Your task to perform on an android device: Show the shopping cart on amazon. Search for logitech g910 on amazon, select the first entry, add it to the cart, then select checkout. Image 0: 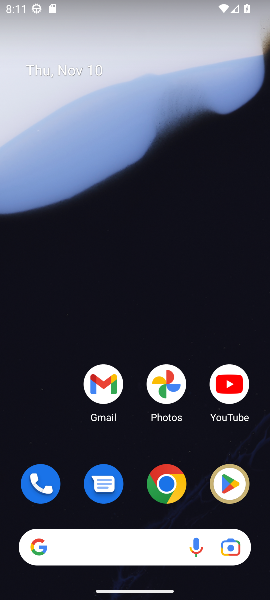
Step 0: click (165, 491)
Your task to perform on an android device: Show the shopping cart on amazon. Search for logitech g910 on amazon, select the first entry, add it to the cart, then select checkout. Image 1: 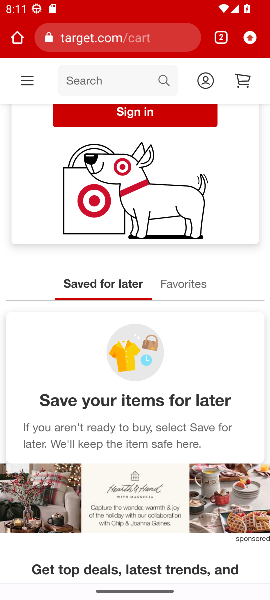
Step 1: click (139, 44)
Your task to perform on an android device: Show the shopping cart on amazon. Search for logitech g910 on amazon, select the first entry, add it to the cart, then select checkout. Image 2: 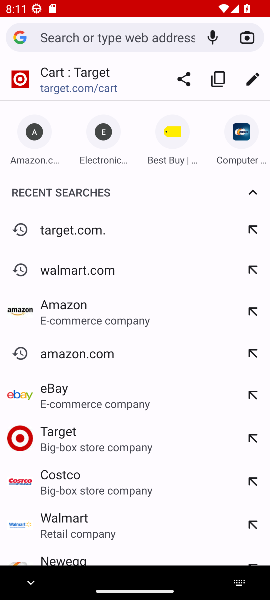
Step 2: click (39, 150)
Your task to perform on an android device: Show the shopping cart on amazon. Search for logitech g910 on amazon, select the first entry, add it to the cart, then select checkout. Image 3: 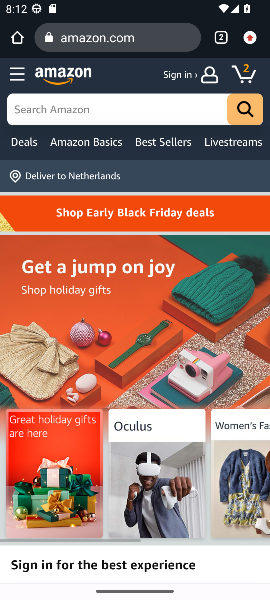
Step 3: click (245, 69)
Your task to perform on an android device: Show the shopping cart on amazon. Search for logitech g910 on amazon, select the first entry, add it to the cart, then select checkout. Image 4: 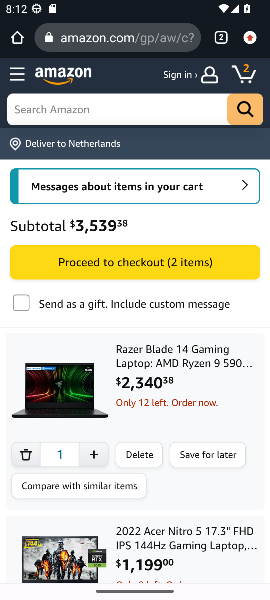
Step 4: drag from (124, 505) to (127, 352)
Your task to perform on an android device: Show the shopping cart on amazon. Search for logitech g910 on amazon, select the first entry, add it to the cart, then select checkout. Image 5: 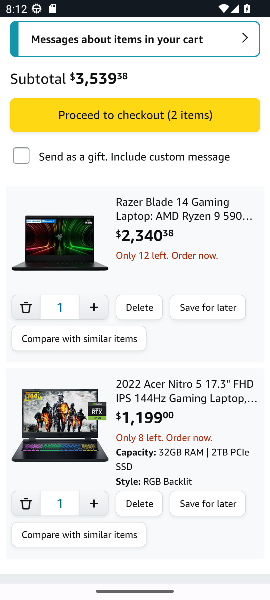
Step 5: drag from (147, 141) to (168, 409)
Your task to perform on an android device: Show the shopping cart on amazon. Search for logitech g910 on amazon, select the first entry, add it to the cart, then select checkout. Image 6: 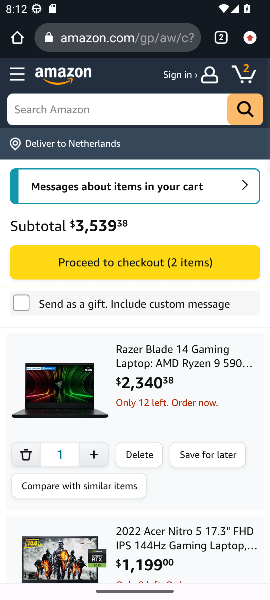
Step 6: click (119, 114)
Your task to perform on an android device: Show the shopping cart on amazon. Search for logitech g910 on amazon, select the first entry, add it to the cart, then select checkout. Image 7: 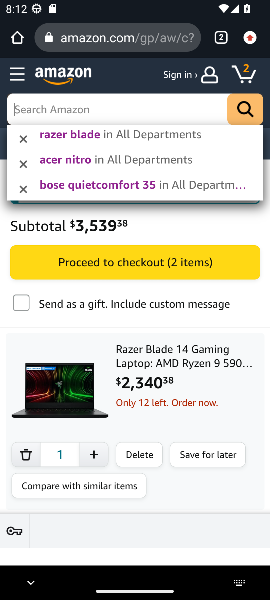
Step 7: type " logitech g910"
Your task to perform on an android device: Show the shopping cart on amazon. Search for logitech g910 on amazon, select the first entry, add it to the cart, then select checkout. Image 8: 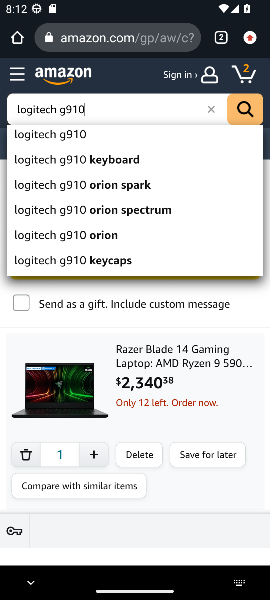
Step 8: click (63, 134)
Your task to perform on an android device: Show the shopping cart on amazon. Search for logitech g910 on amazon, select the first entry, add it to the cart, then select checkout. Image 9: 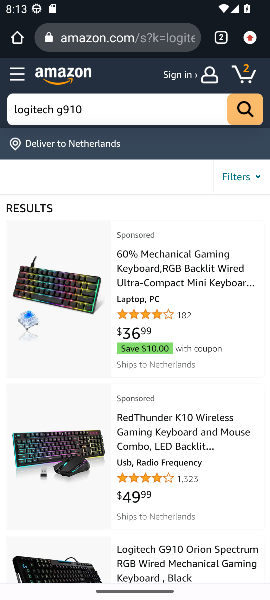
Step 9: task complete